Your task to perform on an android device: Open Yahoo.com Image 0: 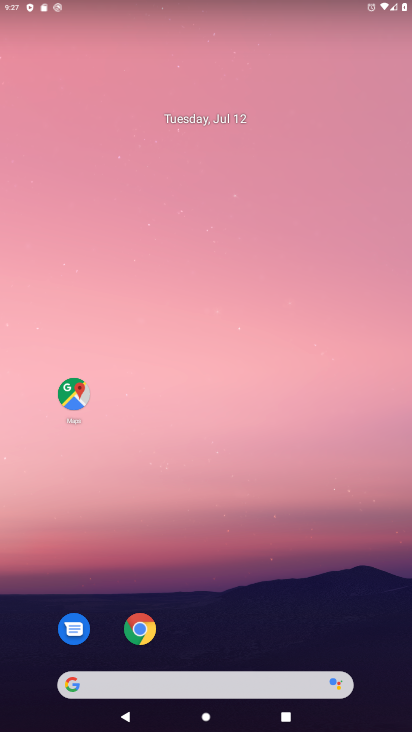
Step 0: click (135, 631)
Your task to perform on an android device: Open Yahoo.com Image 1: 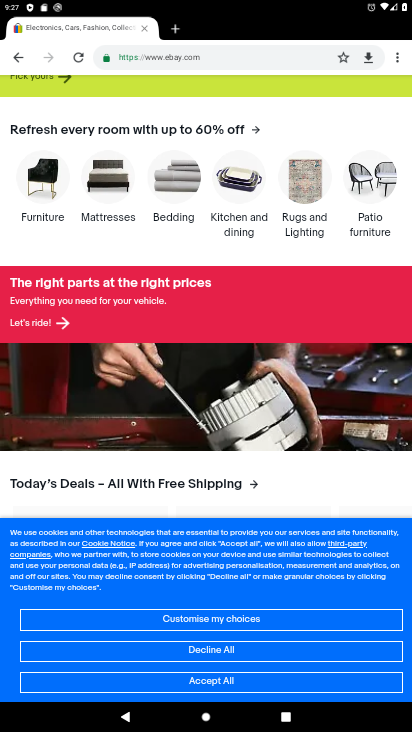
Step 1: click (222, 55)
Your task to perform on an android device: Open Yahoo.com Image 2: 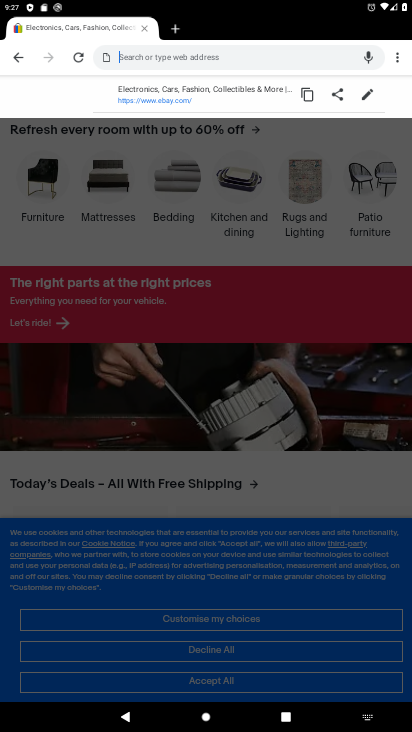
Step 2: type "yahoo.com"
Your task to perform on an android device: Open Yahoo.com Image 3: 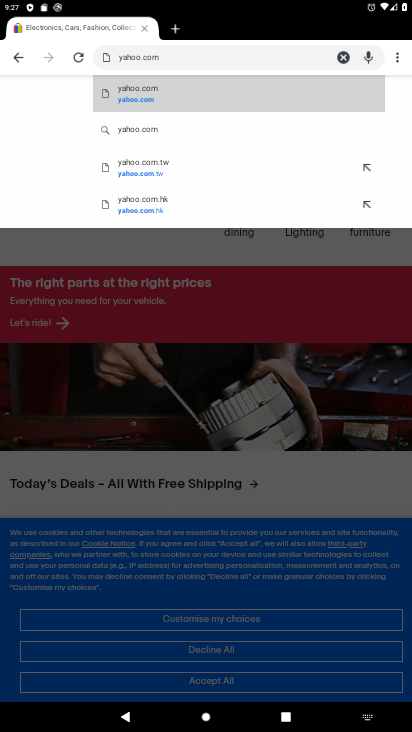
Step 3: click (133, 90)
Your task to perform on an android device: Open Yahoo.com Image 4: 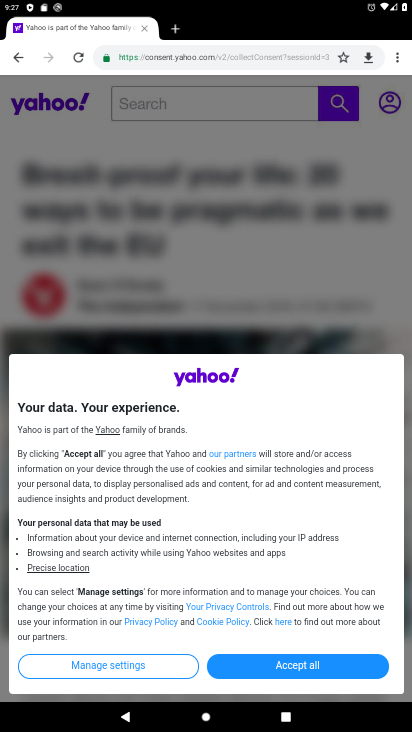
Step 4: click (294, 663)
Your task to perform on an android device: Open Yahoo.com Image 5: 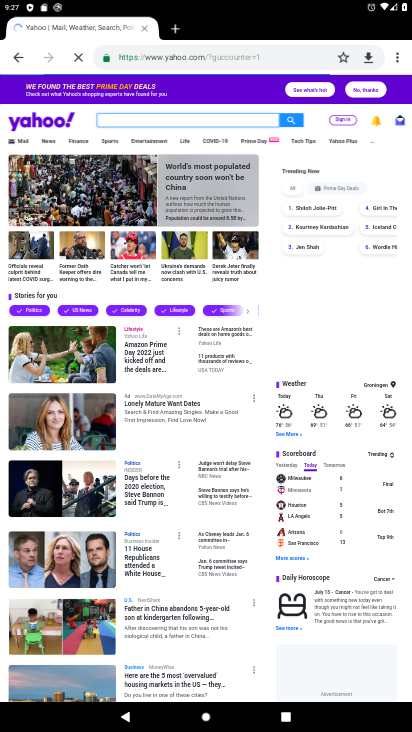
Step 5: task complete